Your task to perform on an android device: What's on my calendar tomorrow? Image 0: 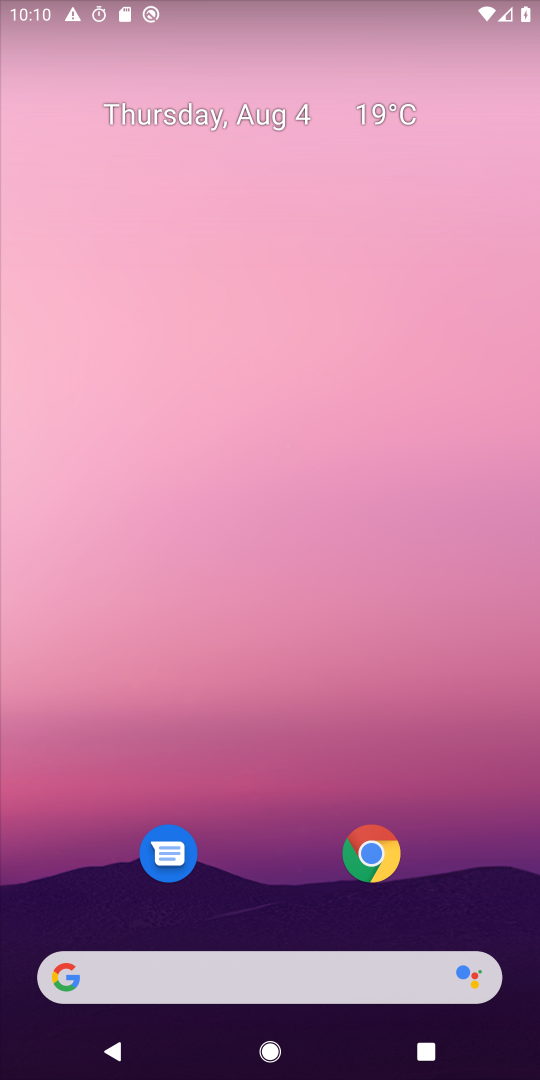
Step 0: drag from (250, 875) to (297, 5)
Your task to perform on an android device: What's on my calendar tomorrow? Image 1: 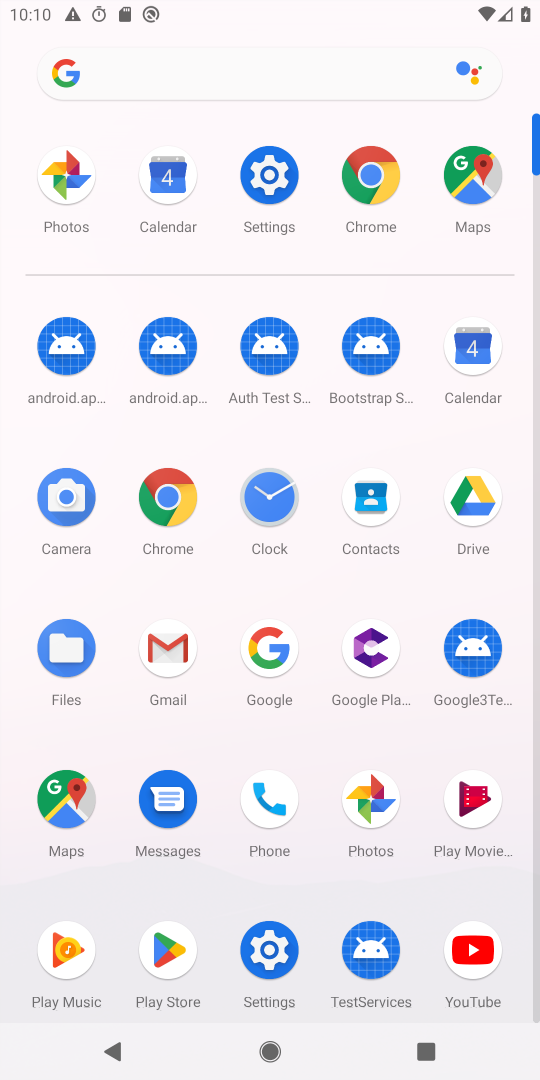
Step 1: click (482, 362)
Your task to perform on an android device: What's on my calendar tomorrow? Image 2: 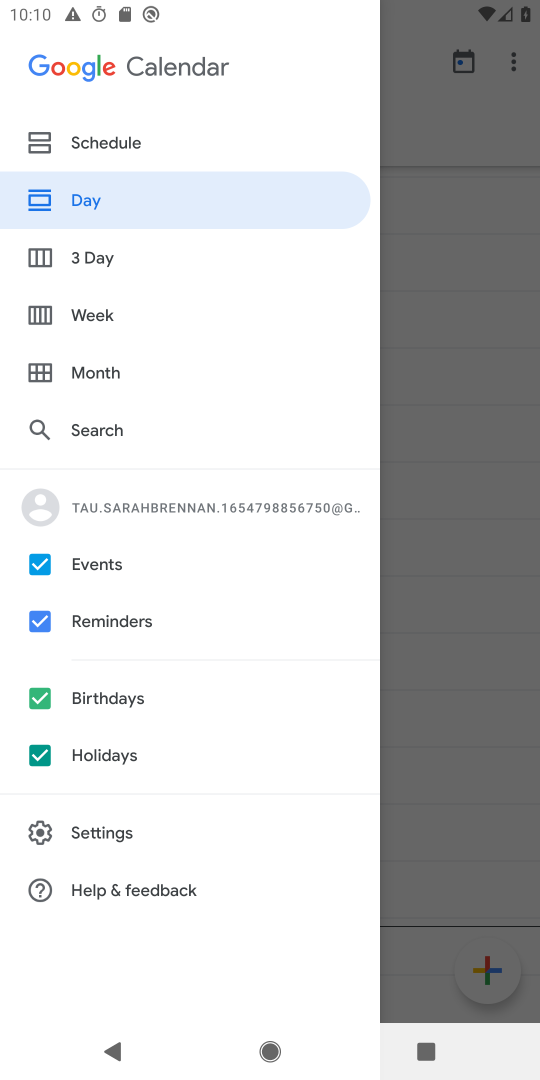
Step 2: click (109, 263)
Your task to perform on an android device: What's on my calendar tomorrow? Image 3: 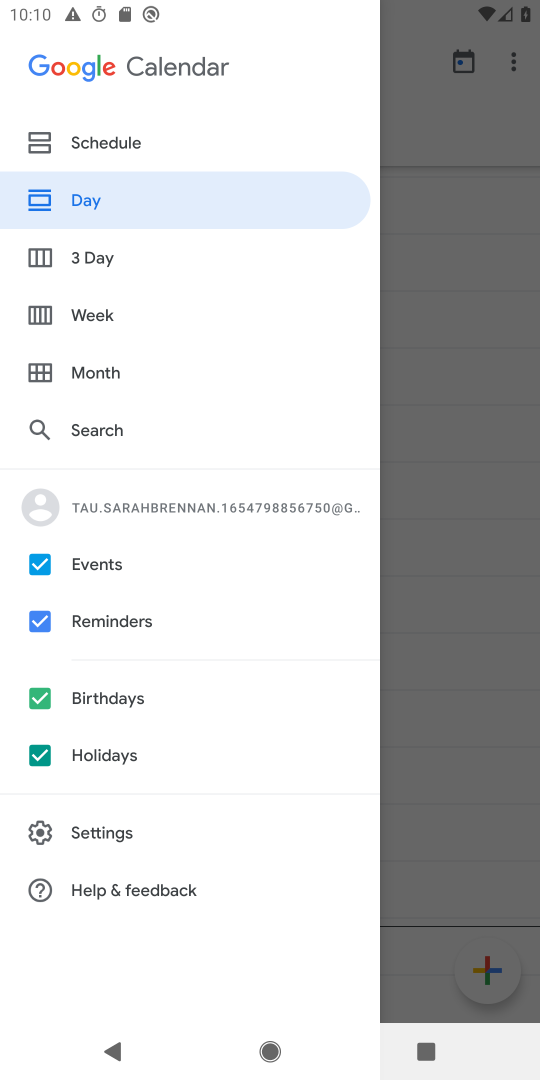
Step 3: click (109, 254)
Your task to perform on an android device: What's on my calendar tomorrow? Image 4: 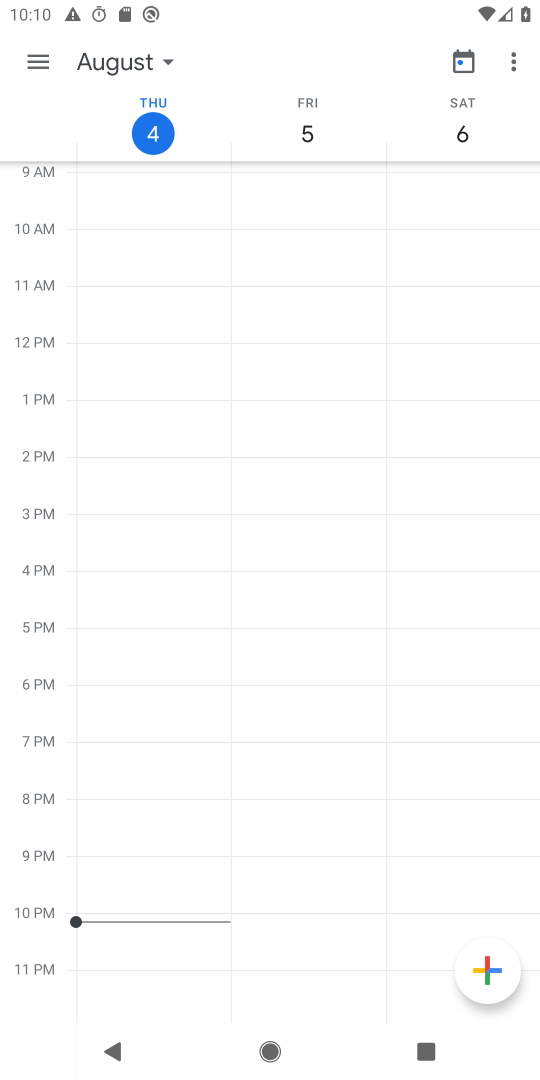
Step 4: task complete